Your task to perform on an android device: Open the web browser Image 0: 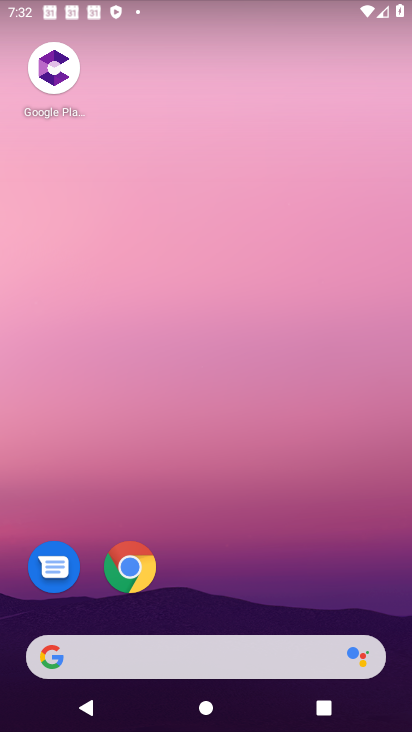
Step 0: click (132, 566)
Your task to perform on an android device: Open the web browser Image 1: 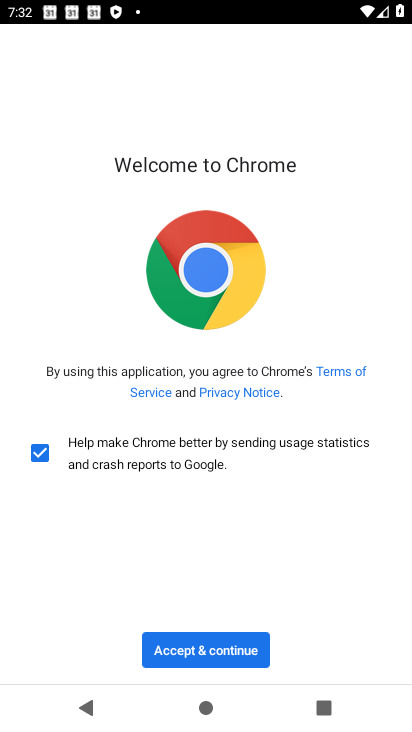
Step 1: click (180, 650)
Your task to perform on an android device: Open the web browser Image 2: 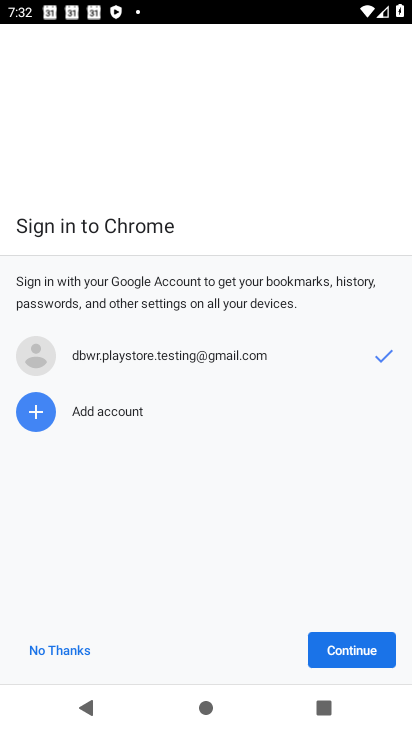
Step 2: click (356, 650)
Your task to perform on an android device: Open the web browser Image 3: 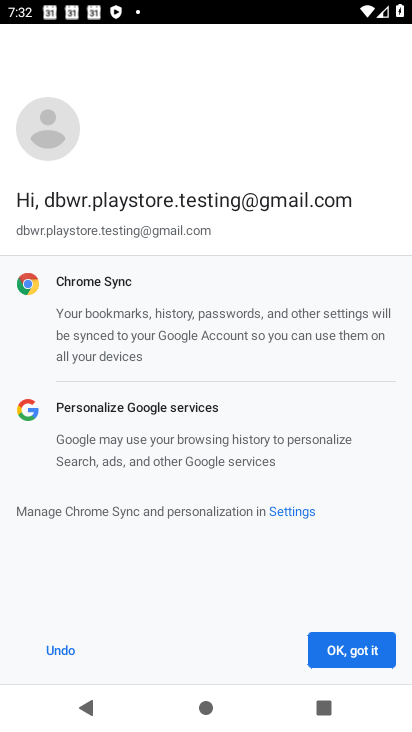
Step 3: click (356, 650)
Your task to perform on an android device: Open the web browser Image 4: 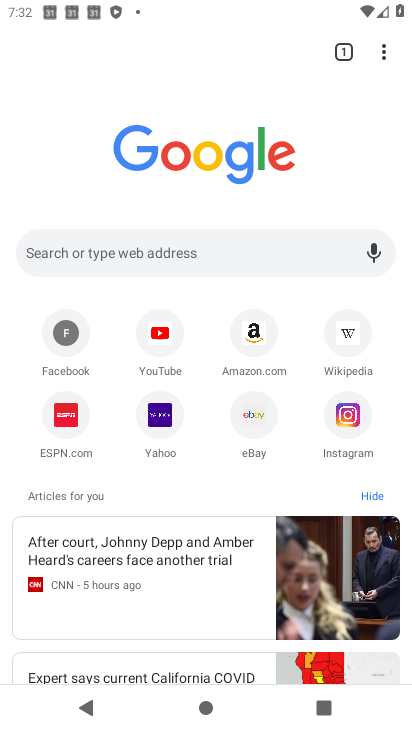
Step 4: task complete